Your task to perform on an android device: Empty the shopping cart on ebay. Add "usb-b" to the cart on ebay Image 0: 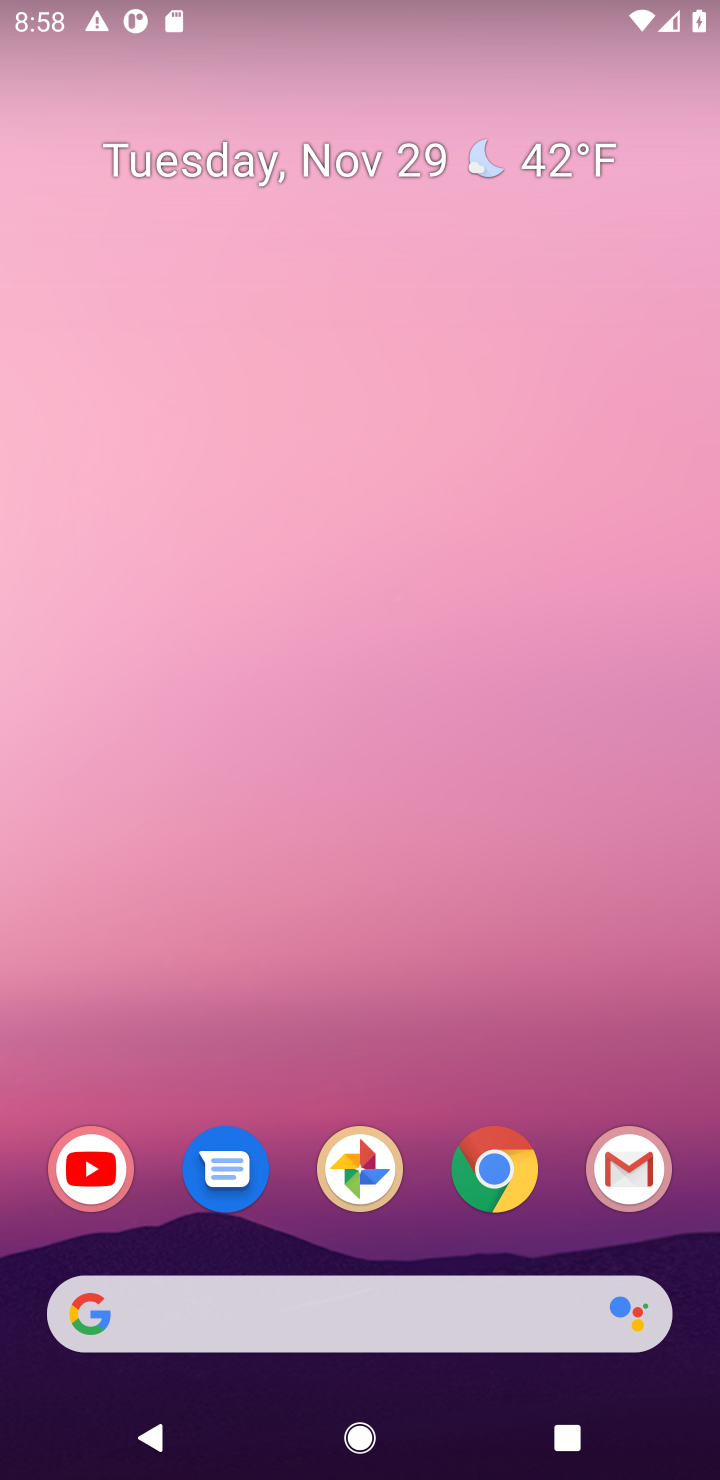
Step 0: click (476, 1292)
Your task to perform on an android device: Empty the shopping cart on ebay. Add "usb-b" to the cart on ebay Image 1: 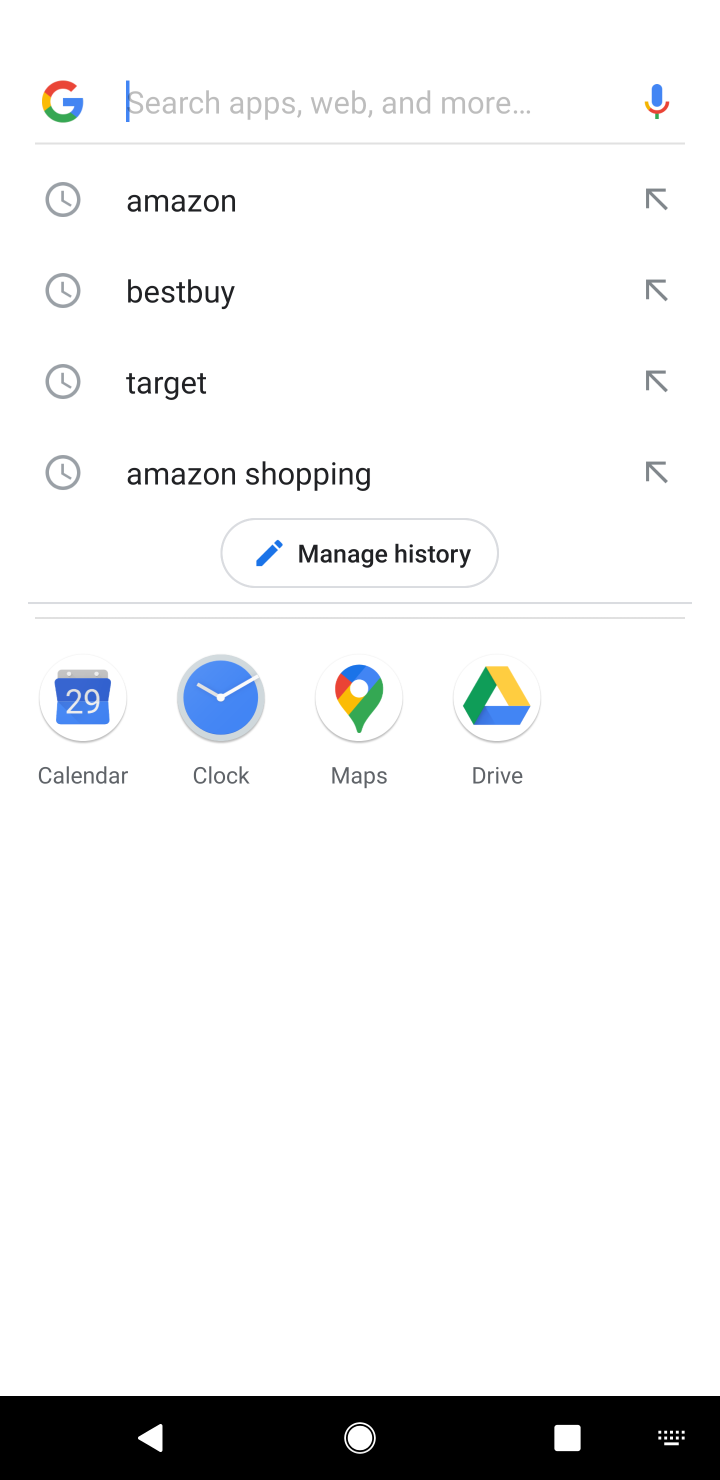
Step 1: type "ebay.com"
Your task to perform on an android device: Empty the shopping cart on ebay. Add "usb-b" to the cart on ebay Image 2: 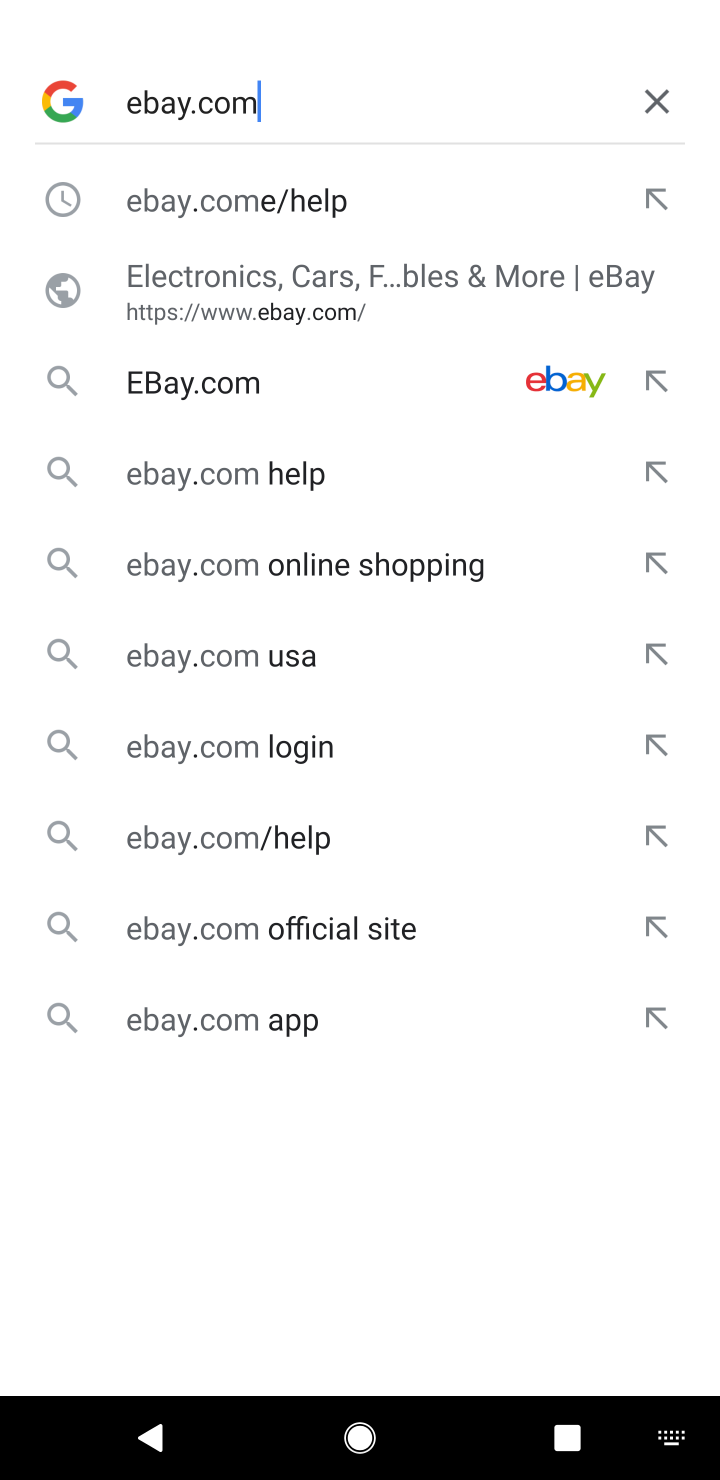
Step 2: click (210, 179)
Your task to perform on an android device: Empty the shopping cart on ebay. Add "usb-b" to the cart on ebay Image 3: 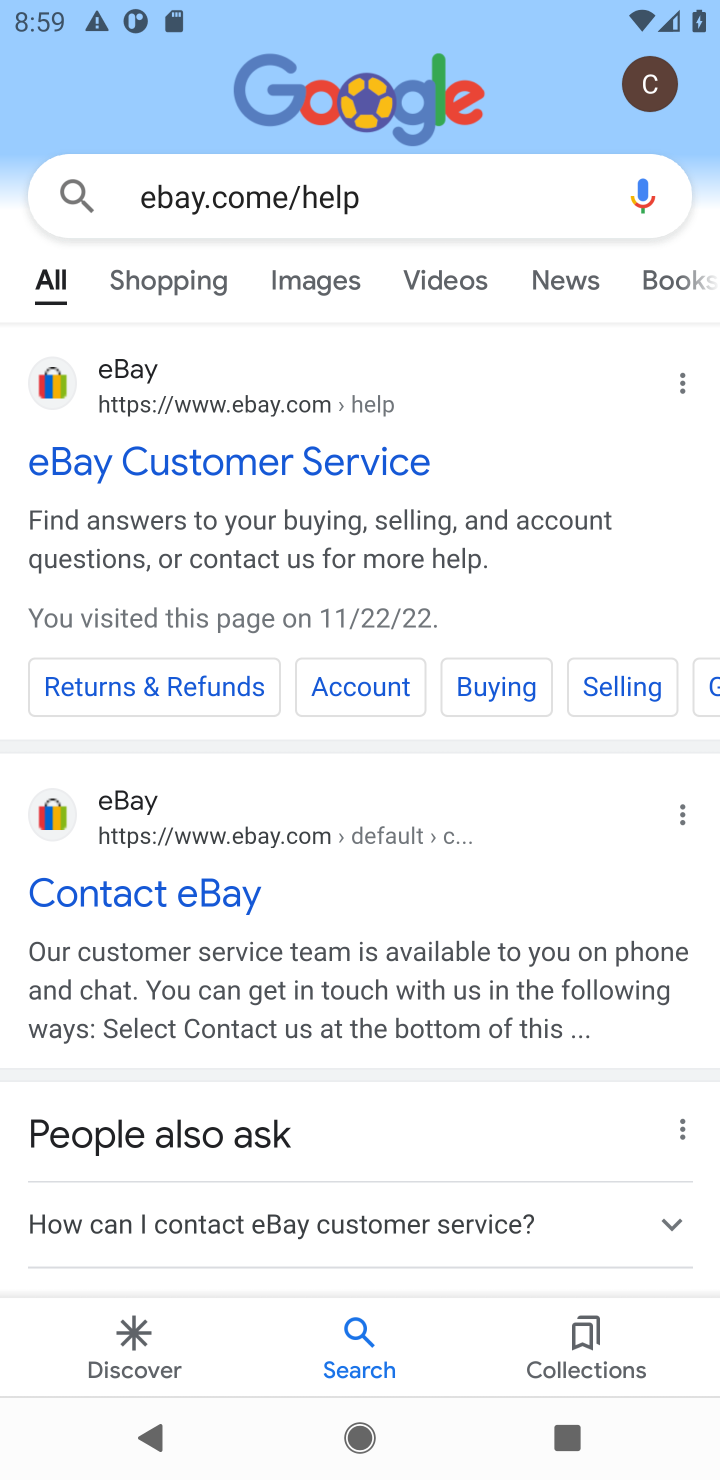
Step 3: click (153, 455)
Your task to perform on an android device: Empty the shopping cart on ebay. Add "usb-b" to the cart on ebay Image 4: 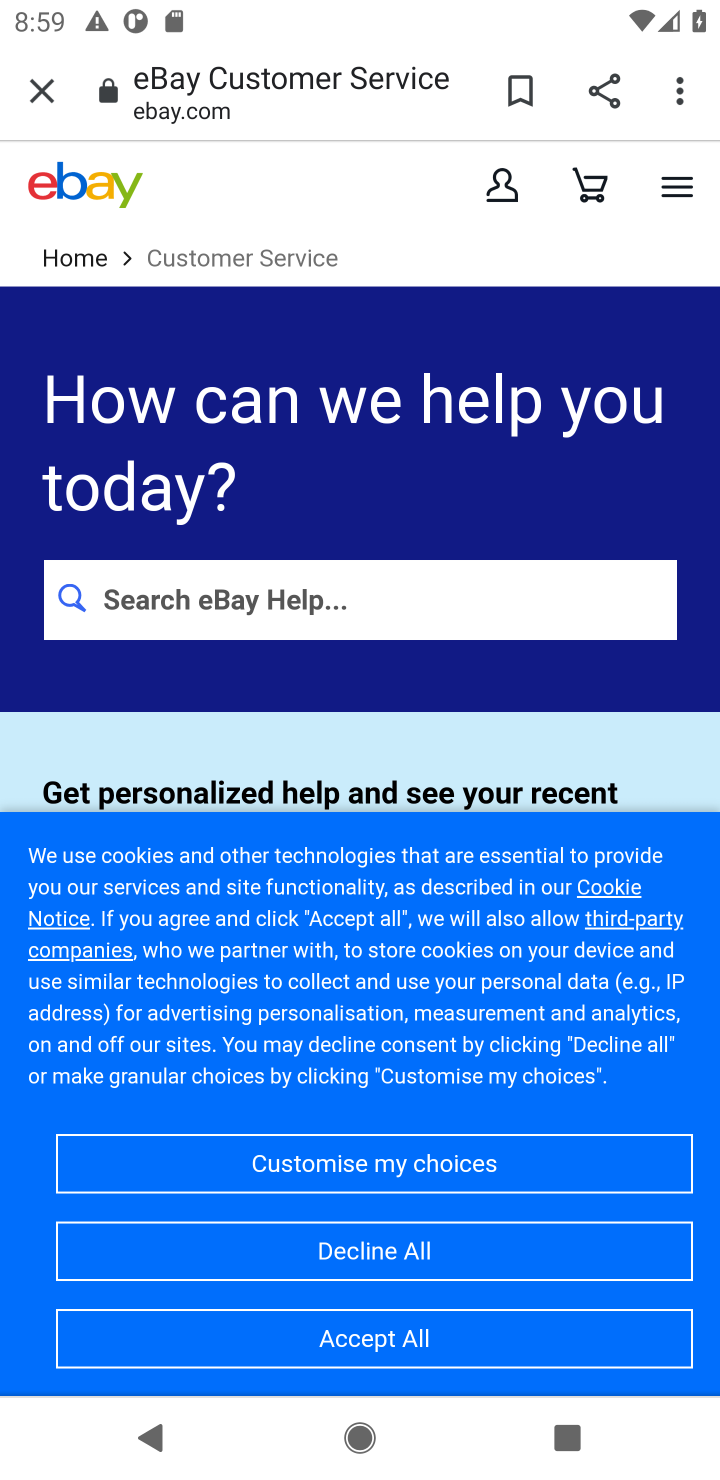
Step 4: click (227, 581)
Your task to perform on an android device: Empty the shopping cart on ebay. Add "usb-b" to the cart on ebay Image 5: 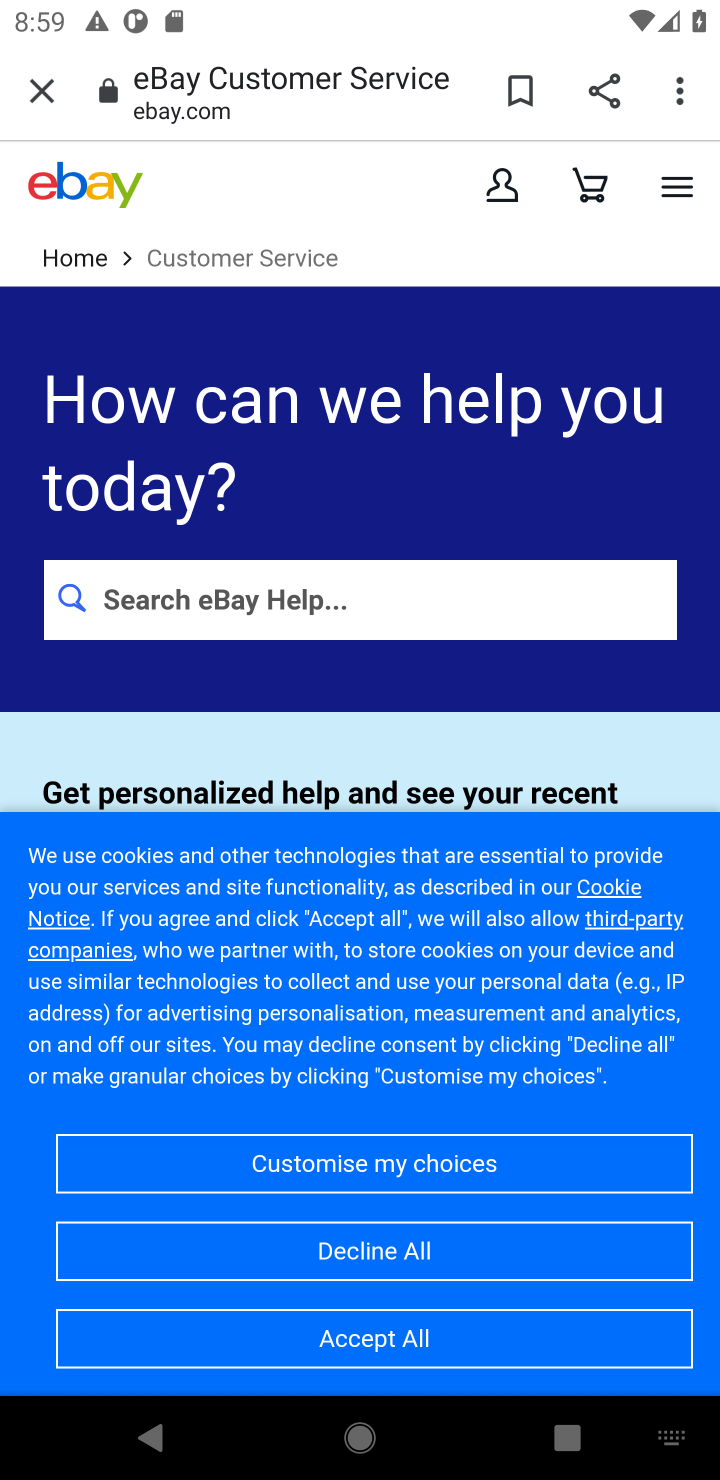
Step 5: task complete